Your task to perform on an android device: move an email to a new category in the gmail app Image 0: 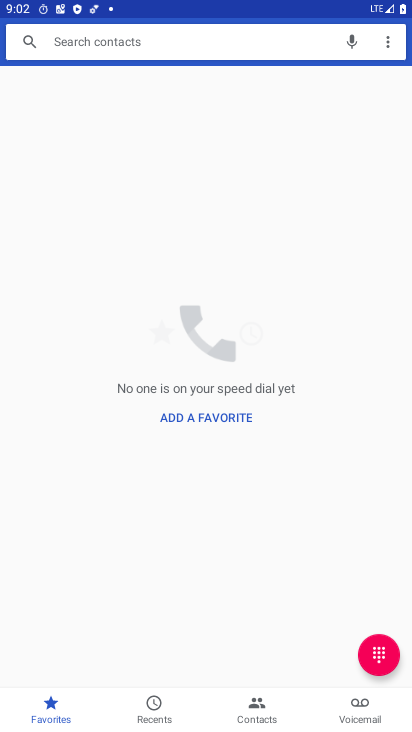
Step 0: press home button
Your task to perform on an android device: move an email to a new category in the gmail app Image 1: 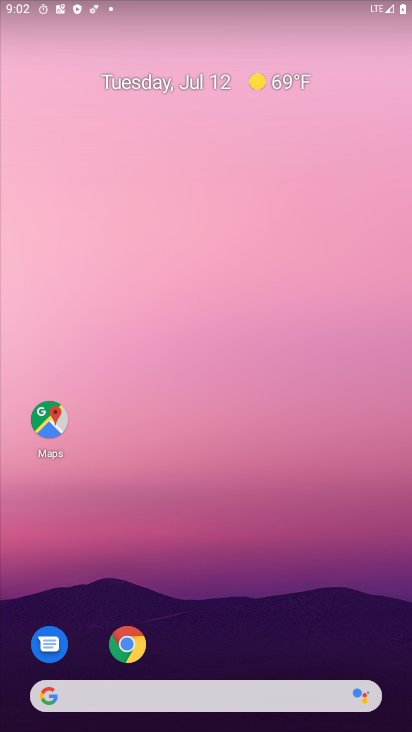
Step 1: drag from (218, 654) to (301, 74)
Your task to perform on an android device: move an email to a new category in the gmail app Image 2: 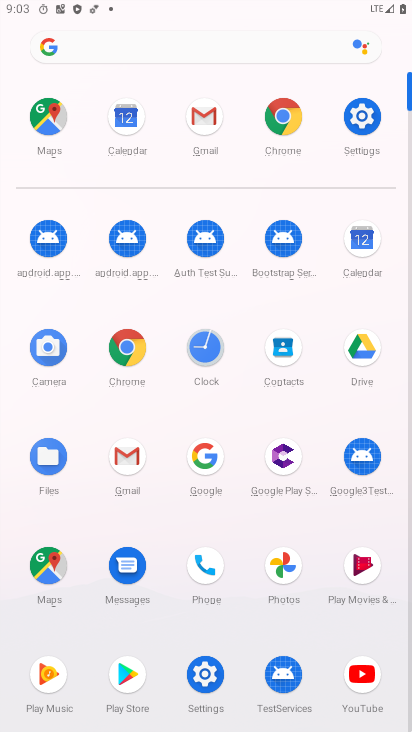
Step 2: click (131, 447)
Your task to perform on an android device: move an email to a new category in the gmail app Image 3: 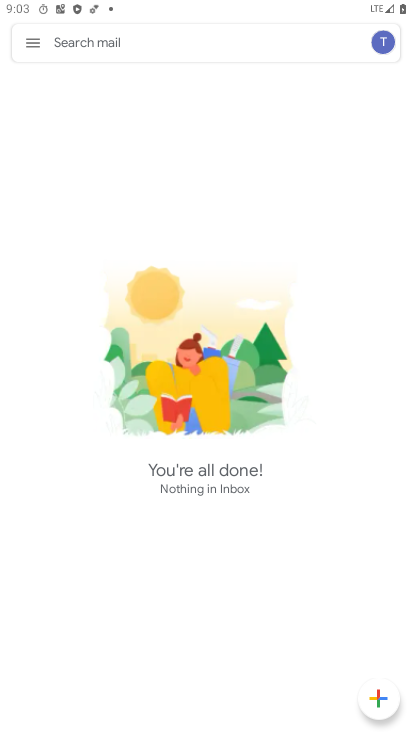
Step 3: click (21, 41)
Your task to perform on an android device: move an email to a new category in the gmail app Image 4: 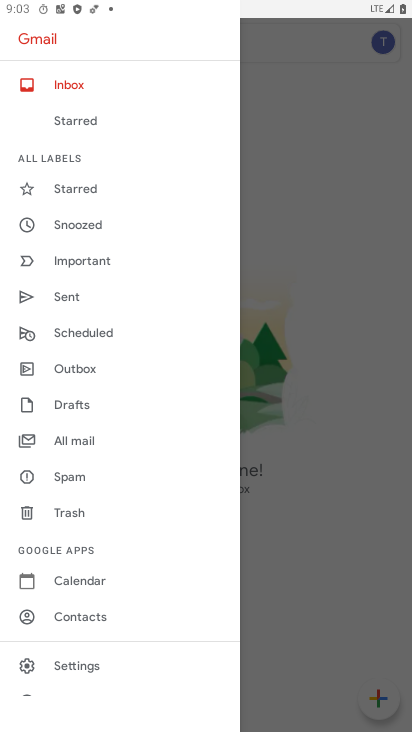
Step 4: click (290, 463)
Your task to perform on an android device: move an email to a new category in the gmail app Image 5: 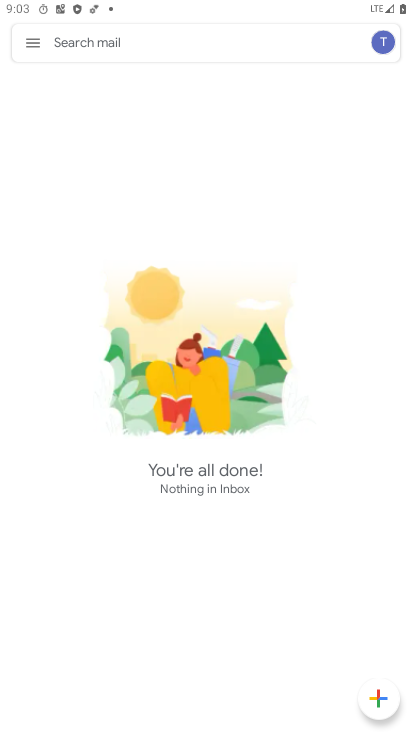
Step 5: task complete